Your task to perform on an android device: Search for pizza restaurants on Maps Image 0: 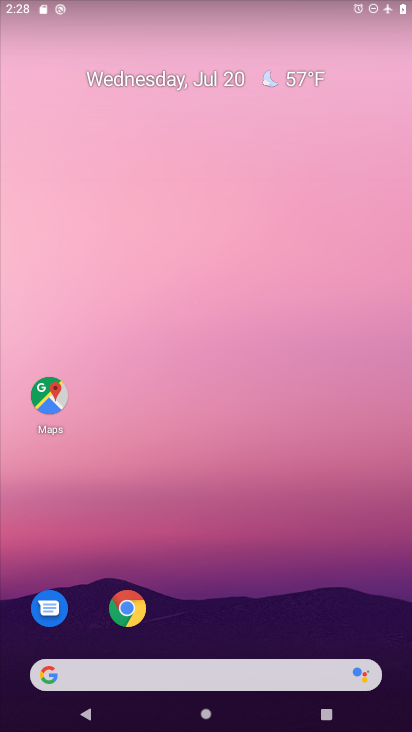
Step 0: click (51, 409)
Your task to perform on an android device: Search for pizza restaurants on Maps Image 1: 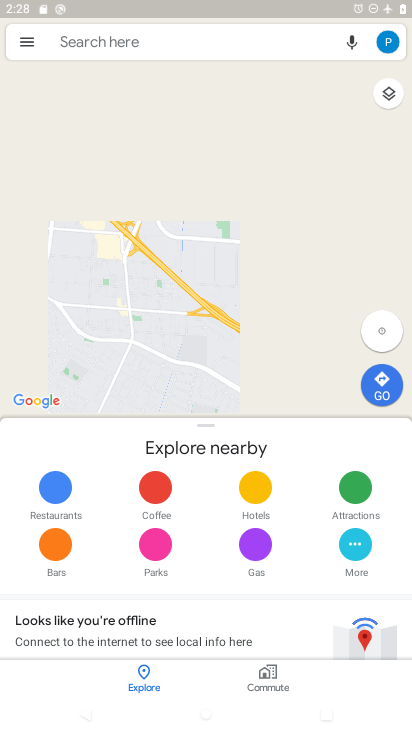
Step 1: click (197, 37)
Your task to perform on an android device: Search for pizza restaurants on Maps Image 2: 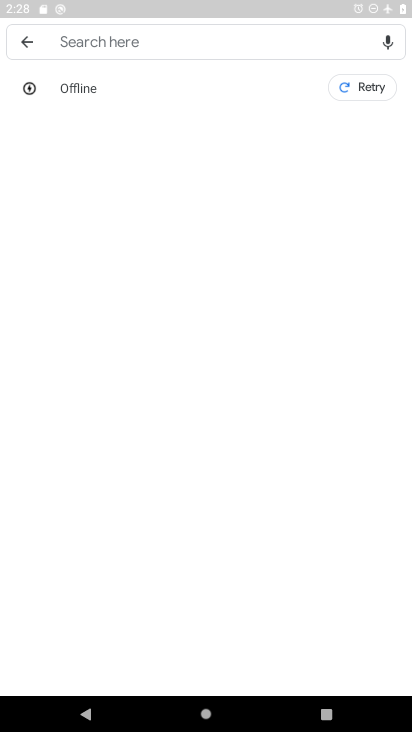
Step 2: type "pizza "
Your task to perform on an android device: Search for pizza restaurants on Maps Image 3: 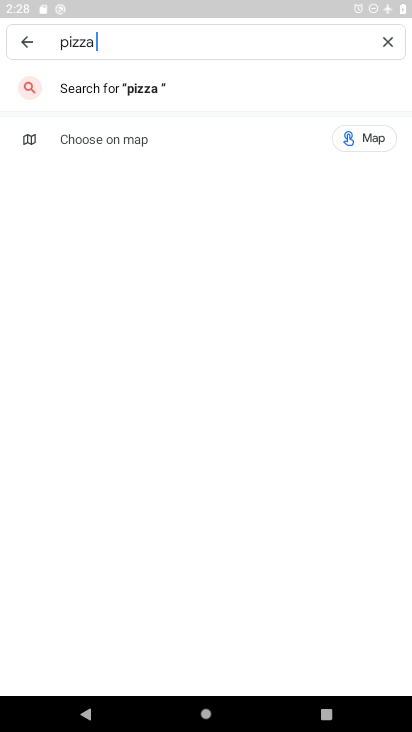
Step 3: task complete